Your task to perform on an android device: Go to ESPN.com Image 0: 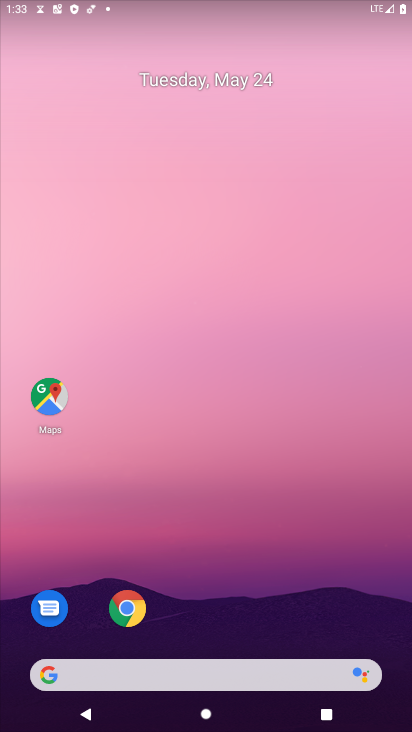
Step 0: drag from (376, 622) to (329, 41)
Your task to perform on an android device: Go to ESPN.com Image 1: 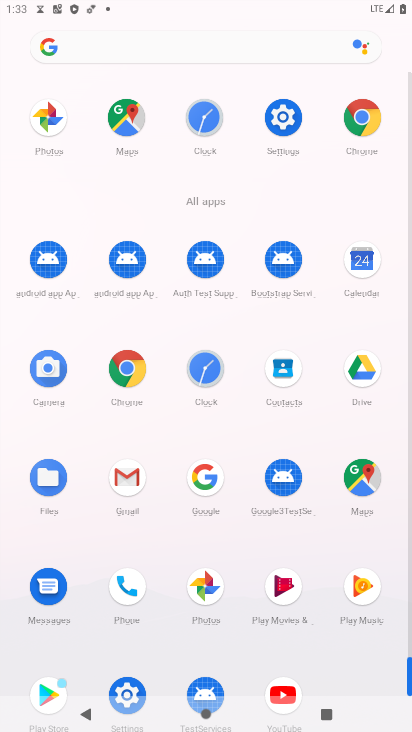
Step 1: click (363, 119)
Your task to perform on an android device: Go to ESPN.com Image 2: 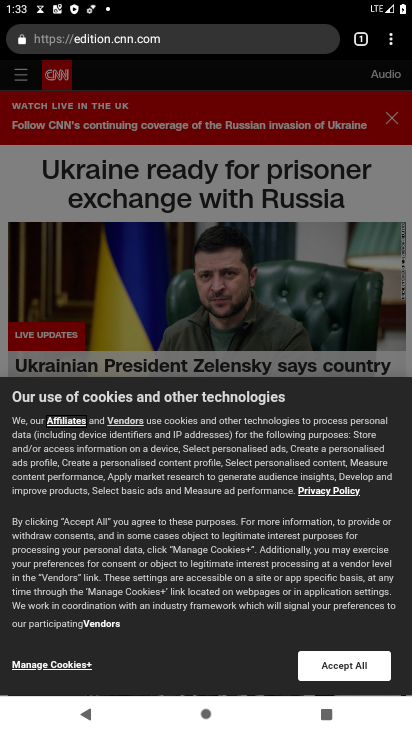
Step 2: click (243, 28)
Your task to perform on an android device: Go to ESPN.com Image 3: 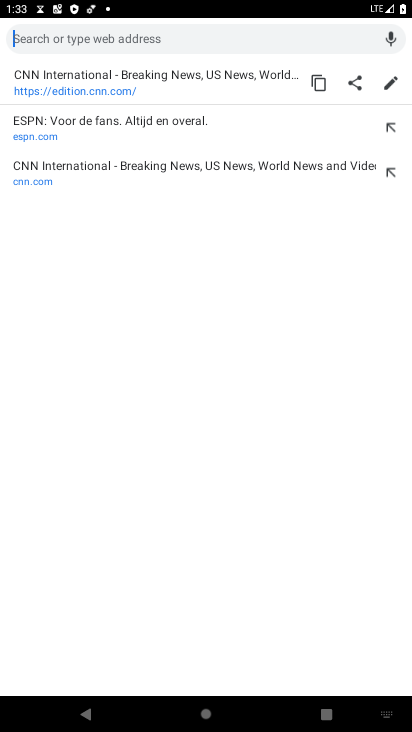
Step 3: click (54, 128)
Your task to perform on an android device: Go to ESPN.com Image 4: 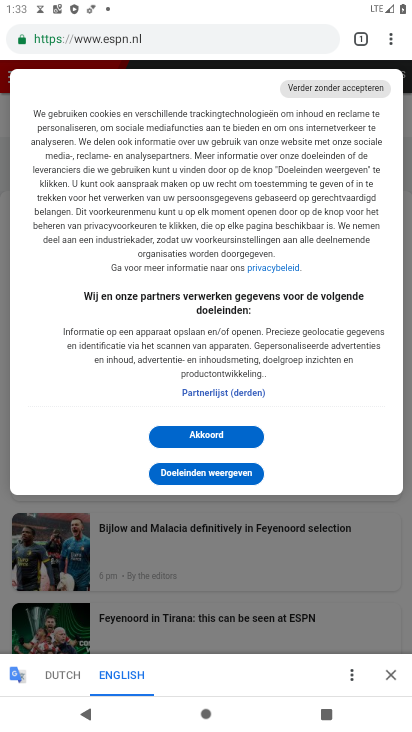
Step 4: task complete